Your task to perform on an android device: turn off data saver in the chrome app Image 0: 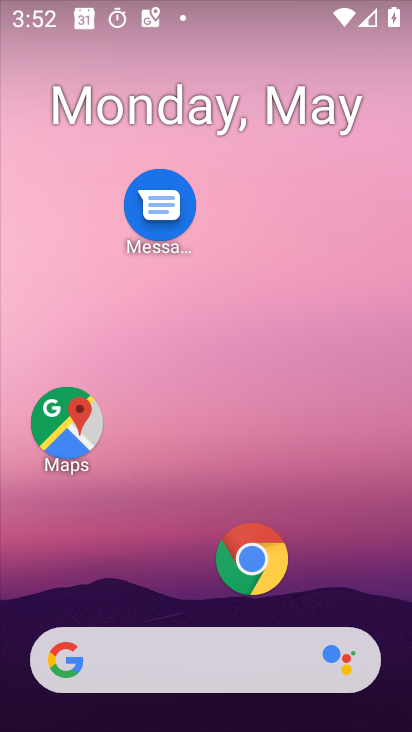
Step 0: click (250, 563)
Your task to perform on an android device: turn off data saver in the chrome app Image 1: 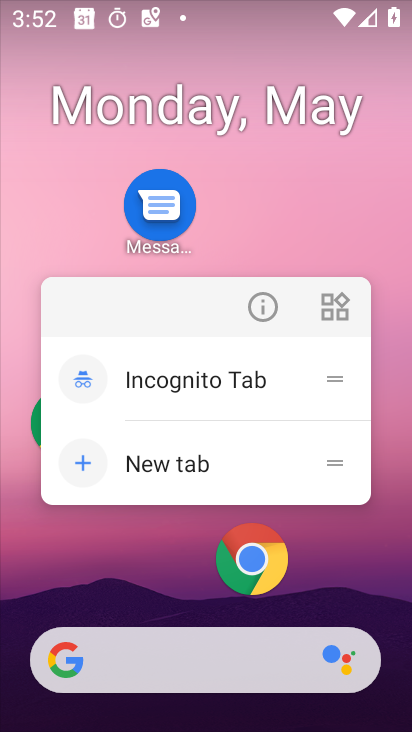
Step 1: click (271, 311)
Your task to perform on an android device: turn off data saver in the chrome app Image 2: 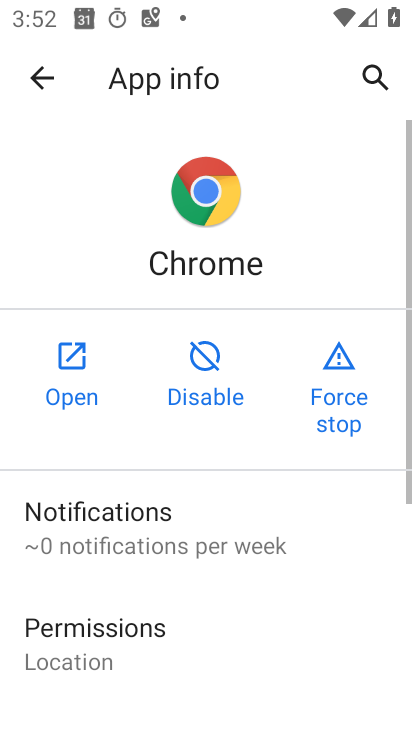
Step 2: click (84, 384)
Your task to perform on an android device: turn off data saver in the chrome app Image 3: 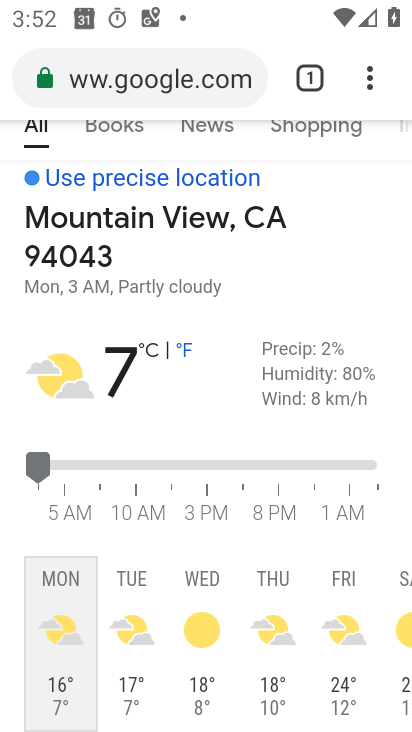
Step 3: click (368, 74)
Your task to perform on an android device: turn off data saver in the chrome app Image 4: 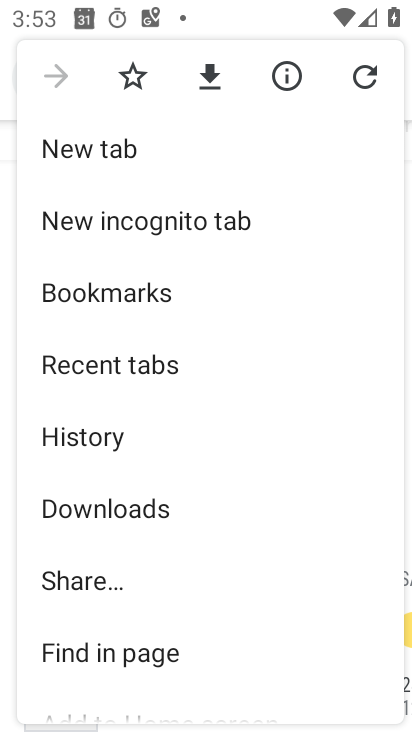
Step 4: drag from (114, 610) to (132, 186)
Your task to perform on an android device: turn off data saver in the chrome app Image 5: 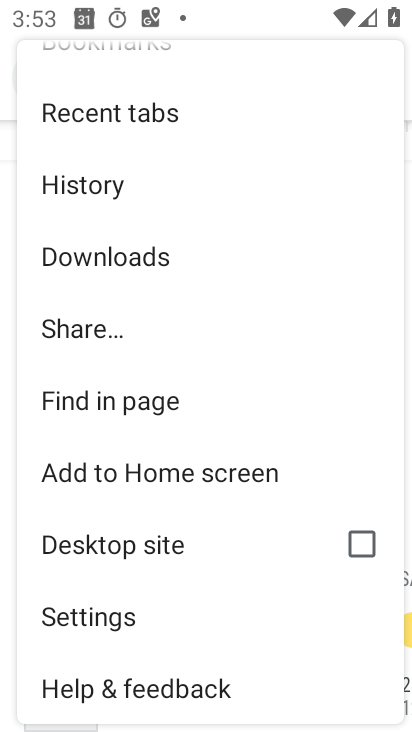
Step 5: drag from (107, 640) to (192, 200)
Your task to perform on an android device: turn off data saver in the chrome app Image 6: 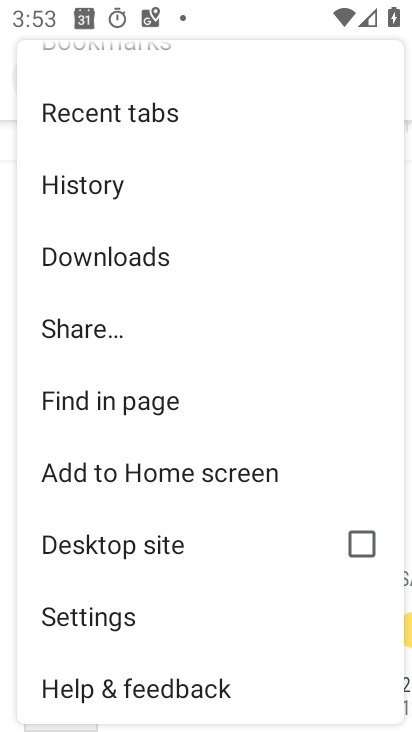
Step 6: click (71, 617)
Your task to perform on an android device: turn off data saver in the chrome app Image 7: 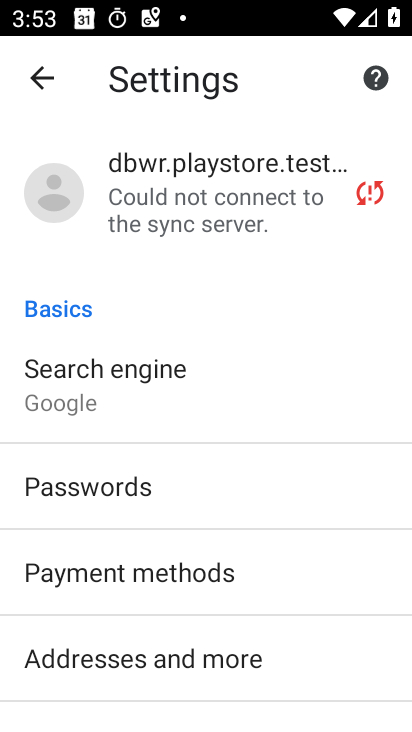
Step 7: drag from (119, 670) to (172, 235)
Your task to perform on an android device: turn off data saver in the chrome app Image 8: 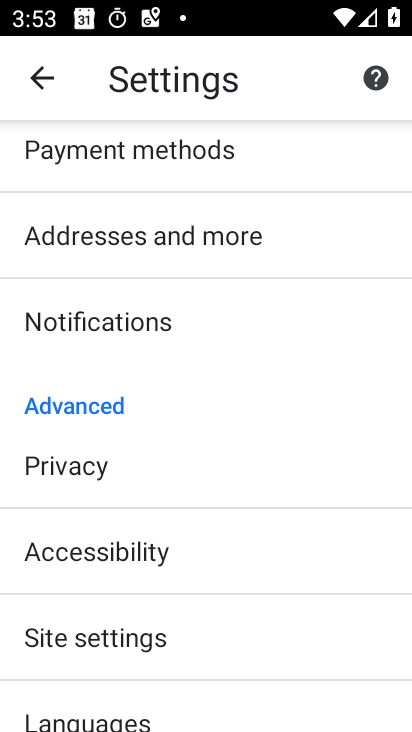
Step 8: drag from (140, 620) to (158, 338)
Your task to perform on an android device: turn off data saver in the chrome app Image 9: 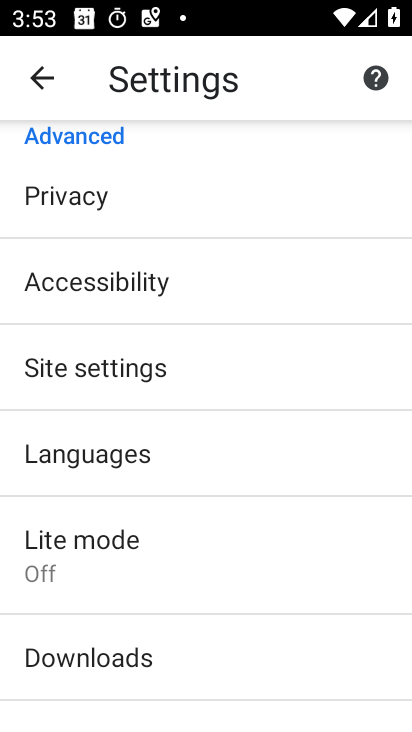
Step 9: click (85, 551)
Your task to perform on an android device: turn off data saver in the chrome app Image 10: 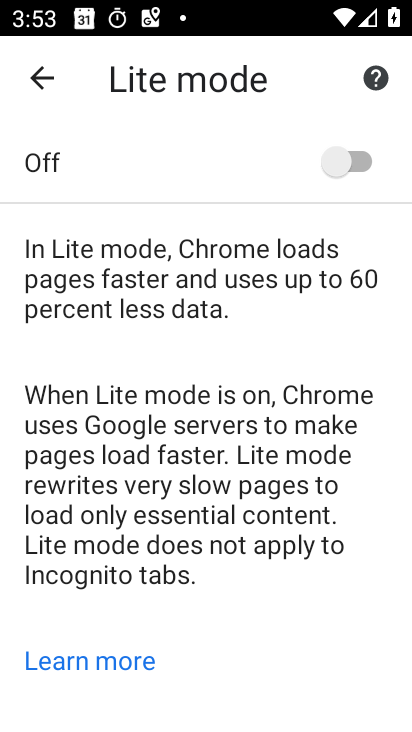
Step 10: task complete